Your task to perform on an android device: View the shopping cart on amazon.com. Add corsair k70 to the cart on amazon.com, then select checkout. Image 0: 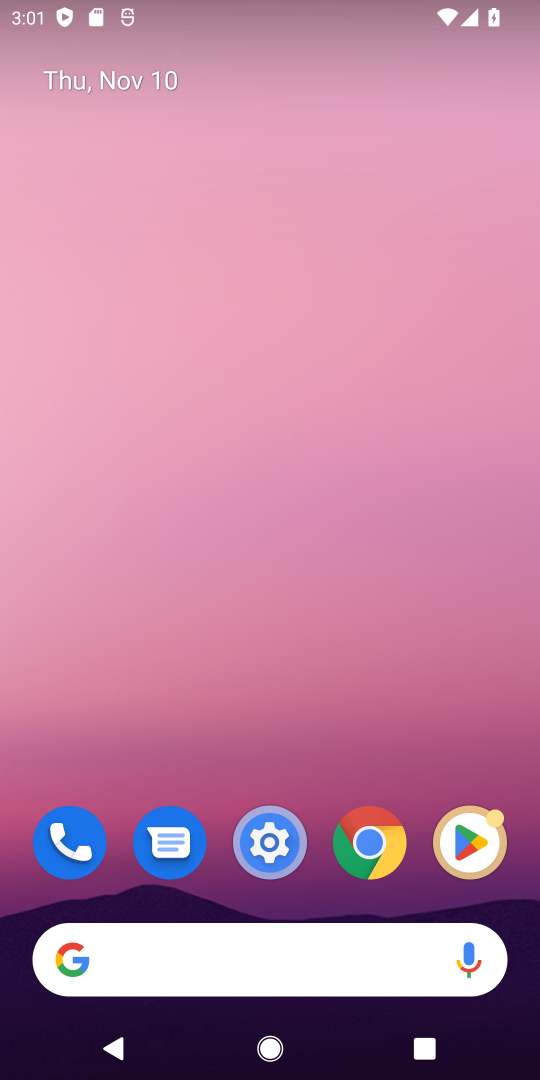
Step 0: press home button
Your task to perform on an android device: View the shopping cart on amazon.com. Add corsair k70 to the cart on amazon.com, then select checkout. Image 1: 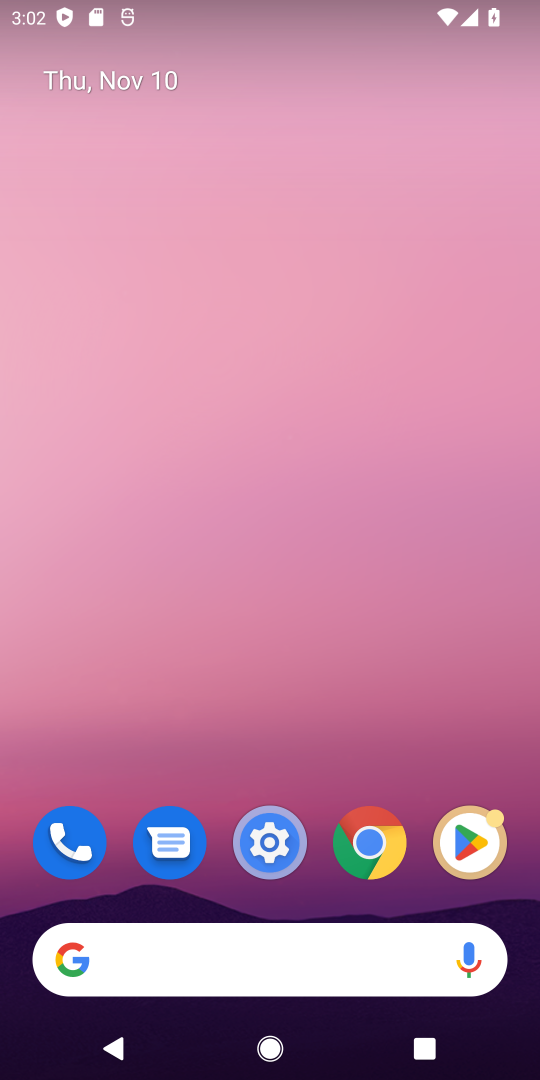
Step 1: click (113, 967)
Your task to perform on an android device: View the shopping cart on amazon.com. Add corsair k70 to the cart on amazon.com, then select checkout. Image 2: 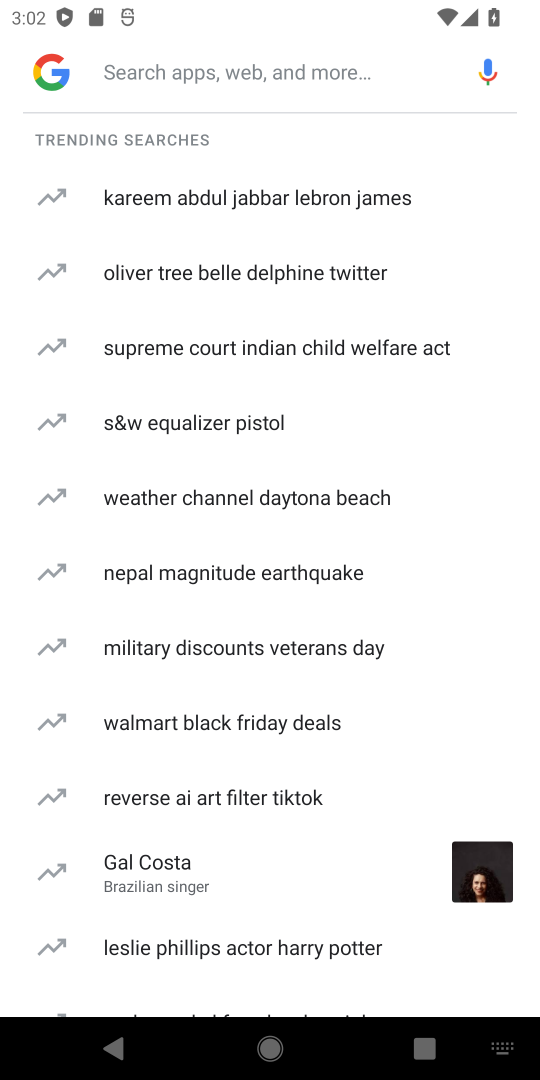
Step 2: type "amazon.com"
Your task to perform on an android device: View the shopping cart on amazon.com. Add corsair k70 to the cart on amazon.com, then select checkout. Image 3: 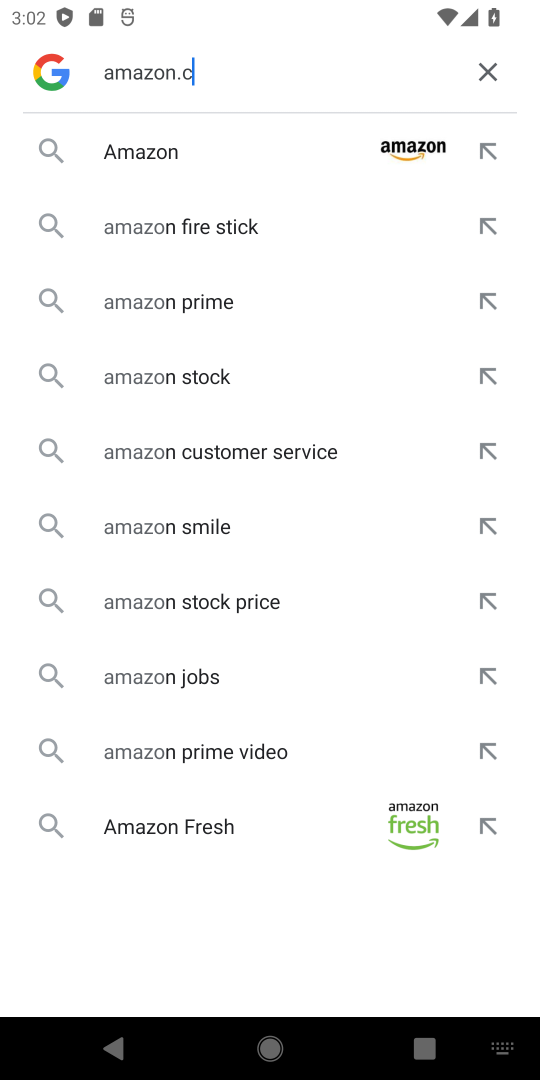
Step 3: press enter
Your task to perform on an android device: View the shopping cart on amazon.com. Add corsair k70 to the cart on amazon.com, then select checkout. Image 4: 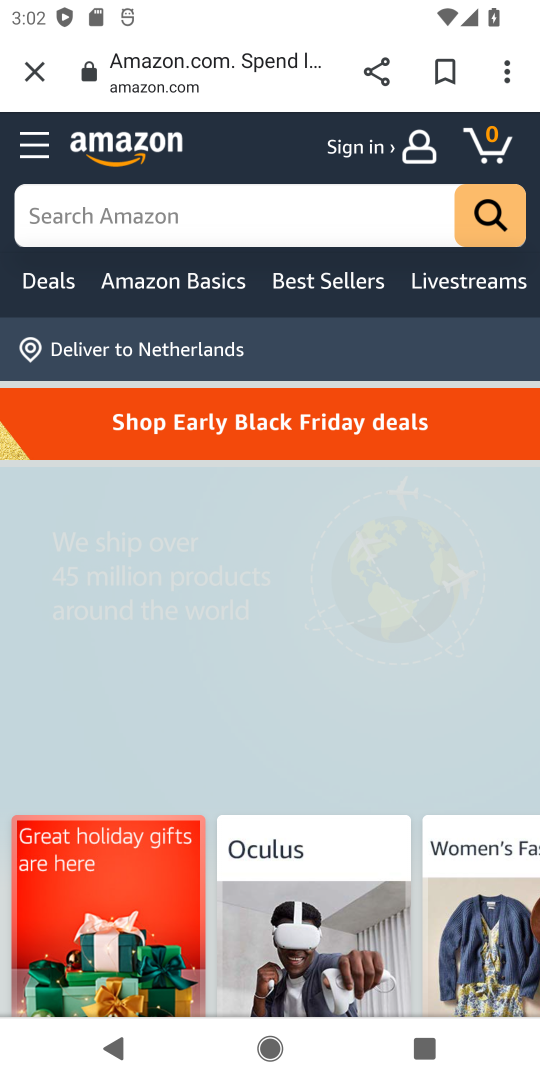
Step 4: click (493, 147)
Your task to perform on an android device: View the shopping cart on amazon.com. Add corsair k70 to the cart on amazon.com, then select checkout. Image 5: 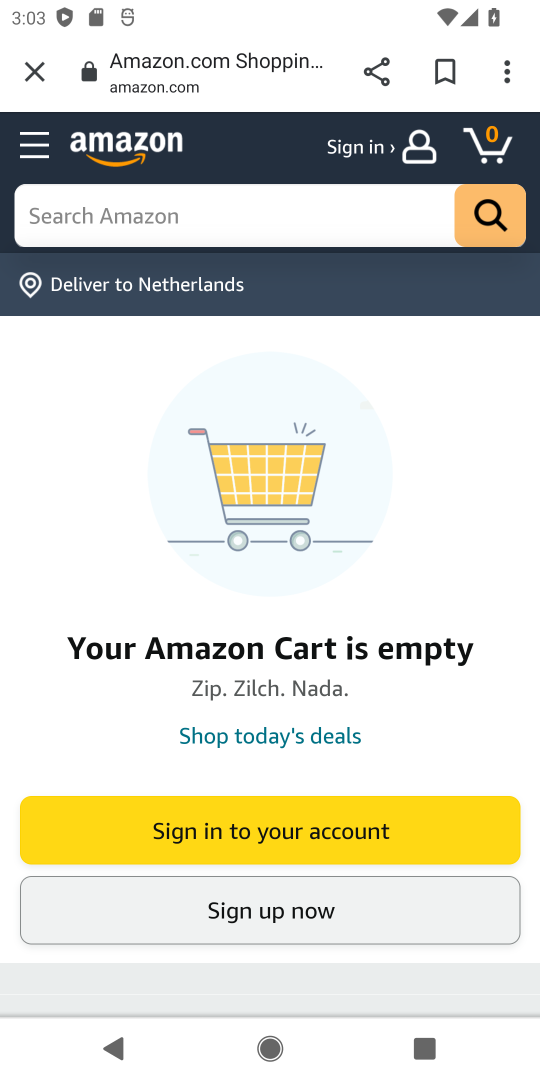
Step 5: type "corsair k70 "
Your task to perform on an android device: View the shopping cart on amazon.com. Add corsair k70 to the cart on amazon.com, then select checkout. Image 6: 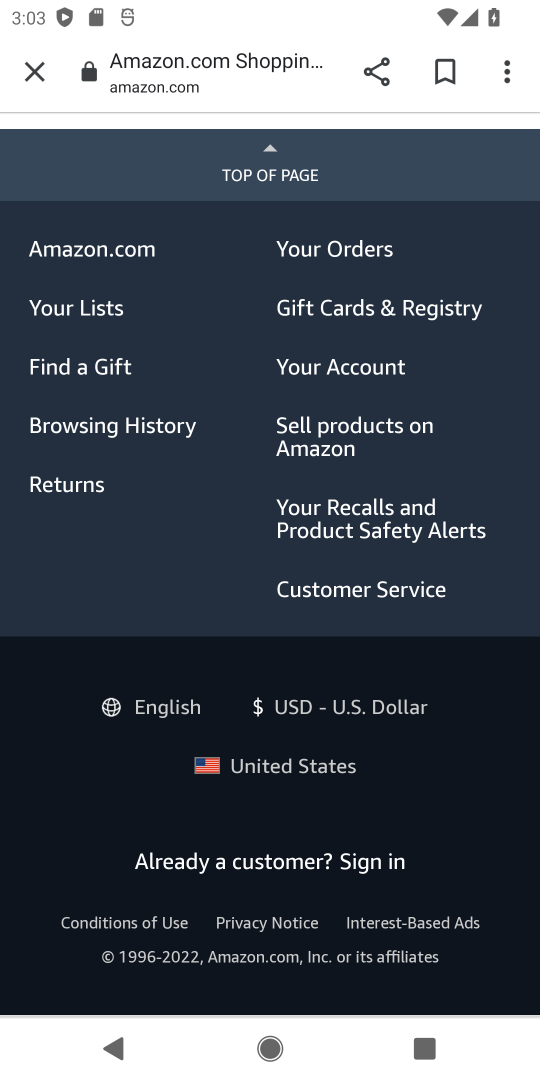
Step 6: task complete